Your task to perform on an android device: check storage Image 0: 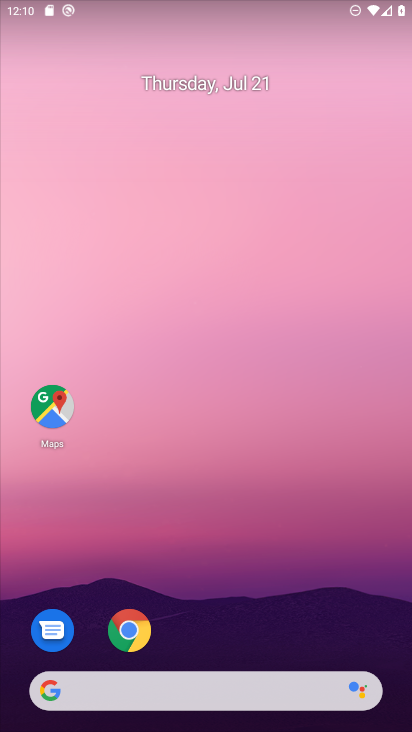
Step 0: drag from (259, 367) to (350, 32)
Your task to perform on an android device: check storage Image 1: 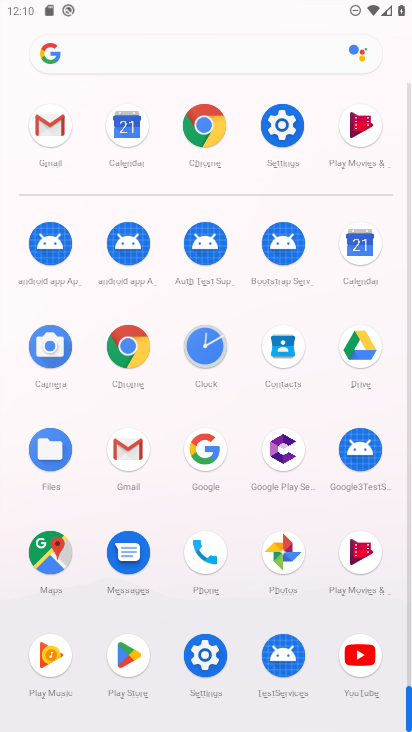
Step 1: click (279, 121)
Your task to perform on an android device: check storage Image 2: 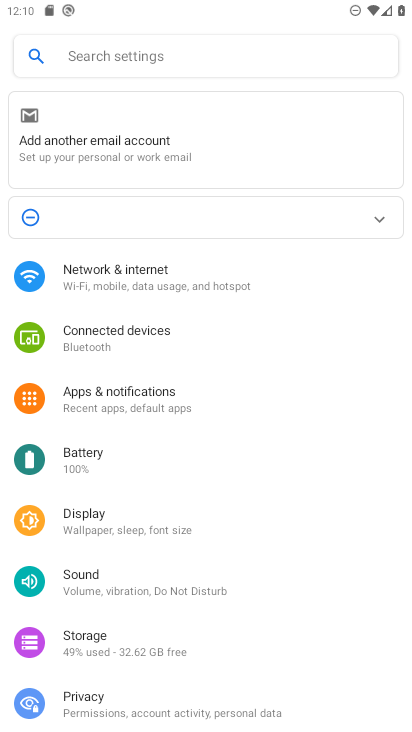
Step 2: click (112, 642)
Your task to perform on an android device: check storage Image 3: 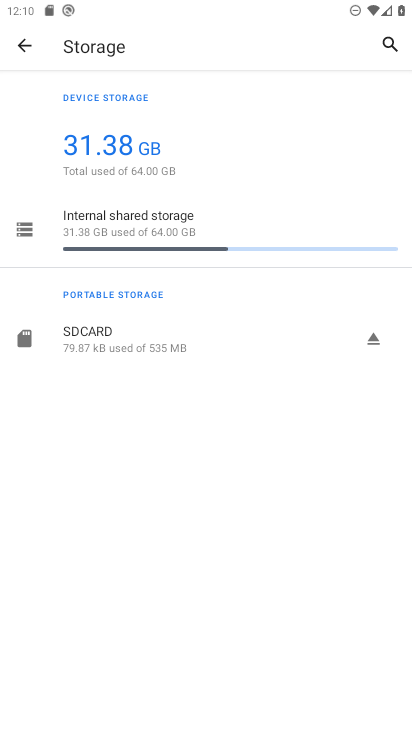
Step 3: task complete